Your task to perform on an android device: change the upload size in google photos Image 0: 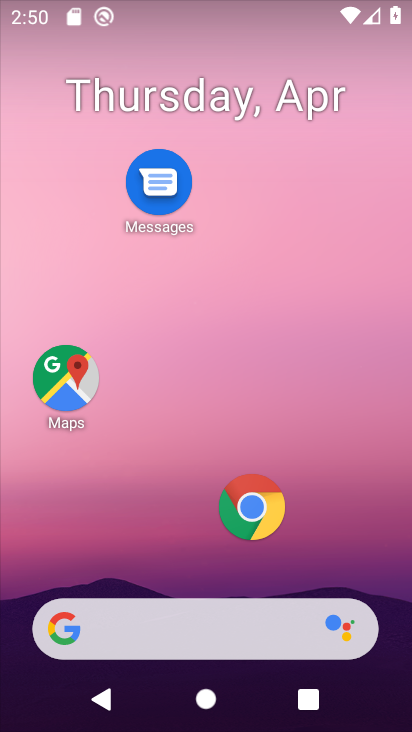
Step 0: click (271, 333)
Your task to perform on an android device: change the upload size in google photos Image 1: 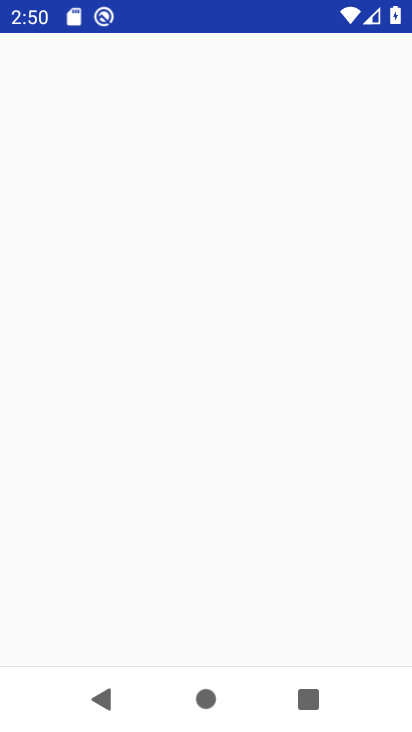
Step 1: drag from (157, 550) to (231, 59)
Your task to perform on an android device: change the upload size in google photos Image 2: 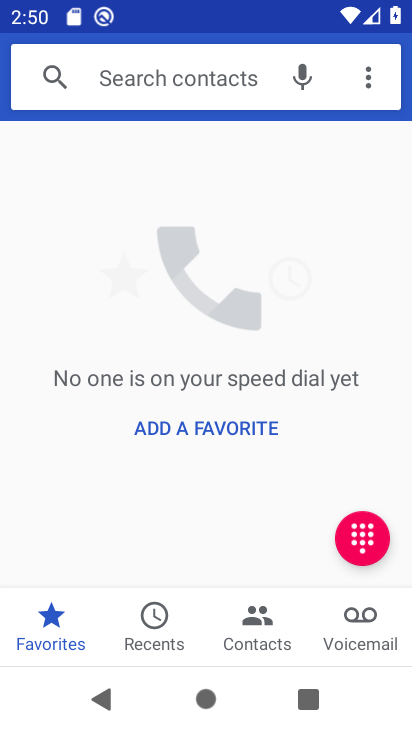
Step 2: press home button
Your task to perform on an android device: change the upload size in google photos Image 3: 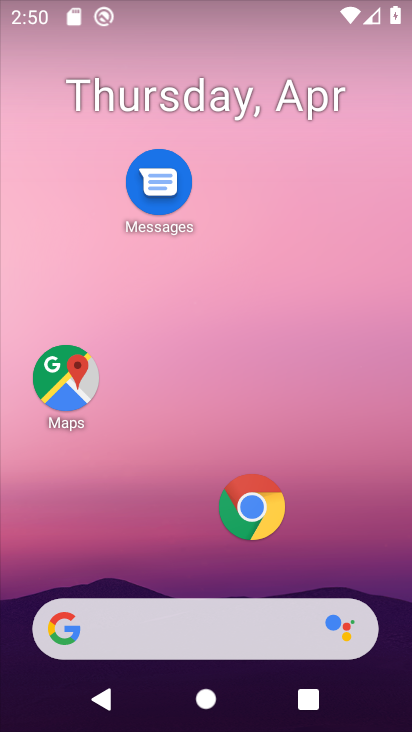
Step 3: drag from (158, 535) to (241, 33)
Your task to perform on an android device: change the upload size in google photos Image 4: 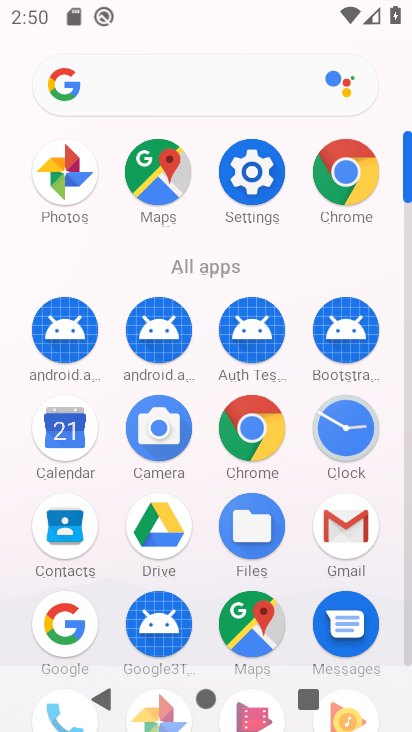
Step 4: click (66, 180)
Your task to perform on an android device: change the upload size in google photos Image 5: 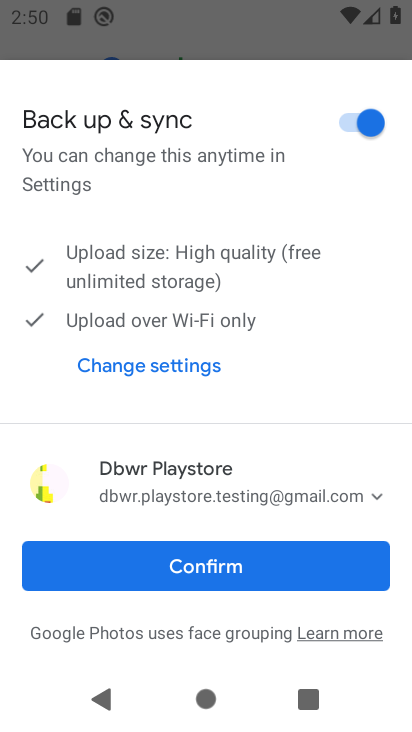
Step 5: click (210, 551)
Your task to perform on an android device: change the upload size in google photos Image 6: 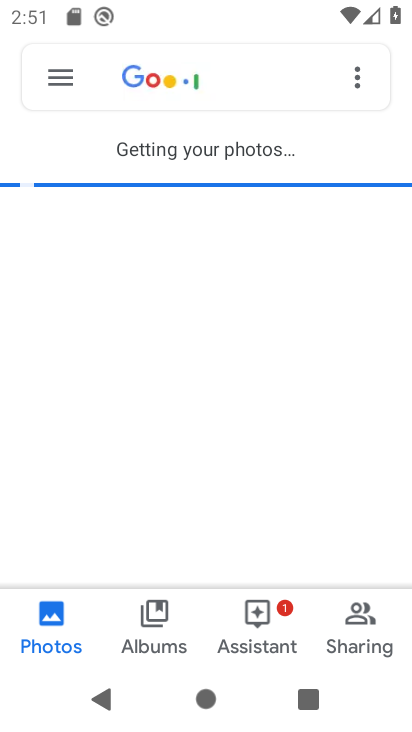
Step 6: click (59, 82)
Your task to perform on an android device: change the upload size in google photos Image 7: 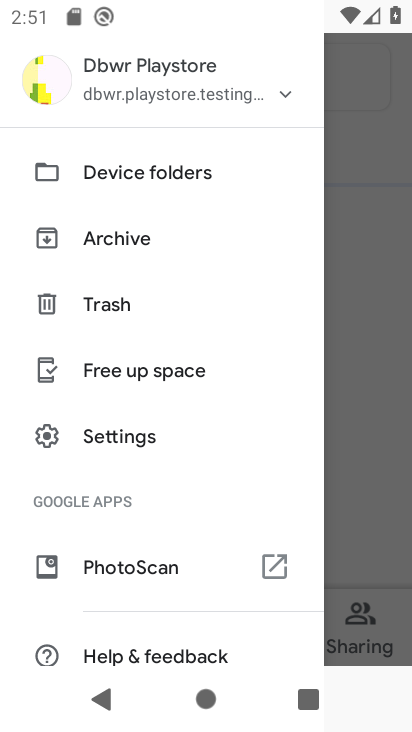
Step 7: click (114, 436)
Your task to perform on an android device: change the upload size in google photos Image 8: 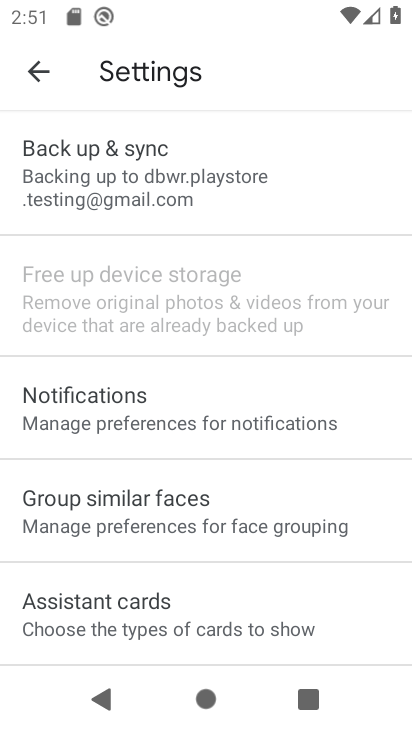
Step 8: click (139, 187)
Your task to perform on an android device: change the upload size in google photos Image 9: 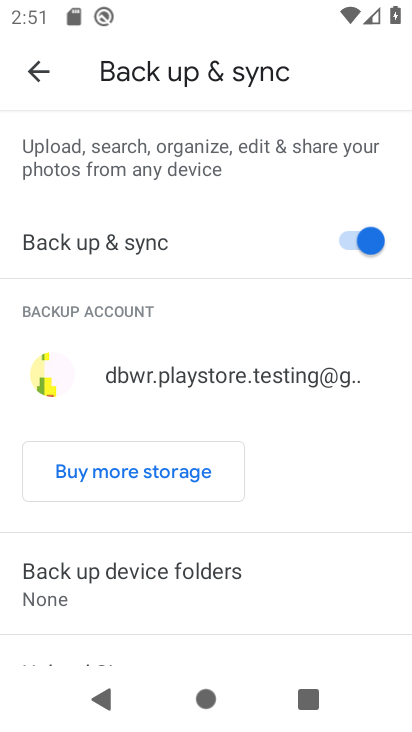
Step 9: drag from (167, 490) to (231, 297)
Your task to perform on an android device: change the upload size in google photos Image 10: 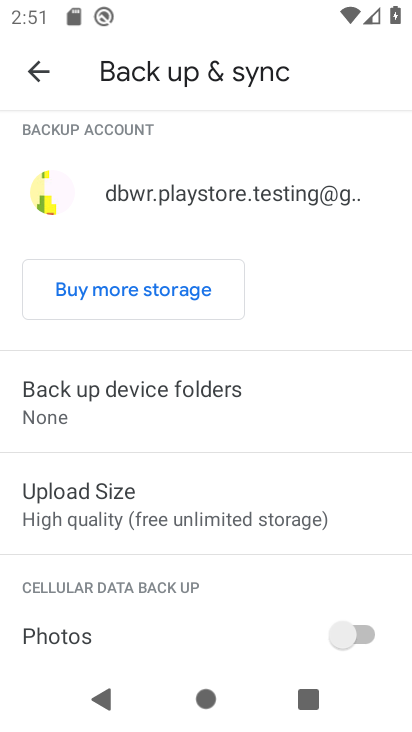
Step 10: click (162, 509)
Your task to perform on an android device: change the upload size in google photos Image 11: 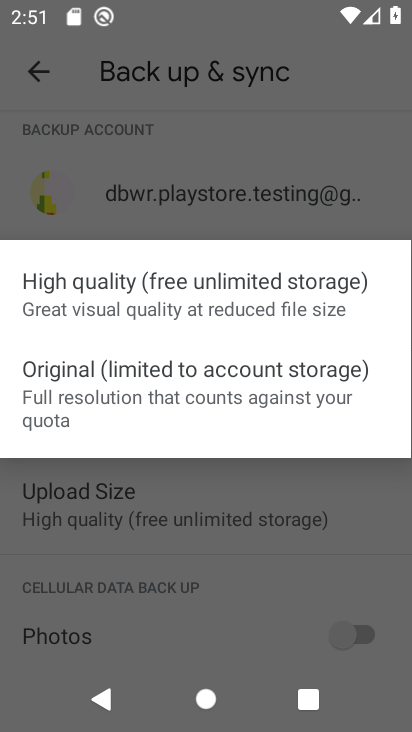
Step 11: click (125, 393)
Your task to perform on an android device: change the upload size in google photos Image 12: 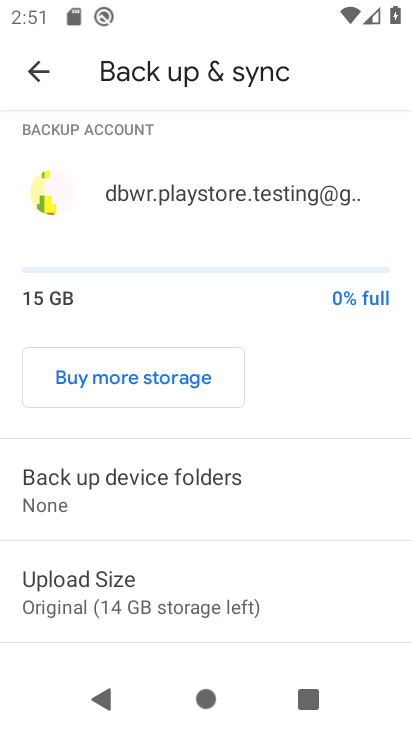
Step 12: task complete